Your task to perform on an android device: star an email in the gmail app Image 0: 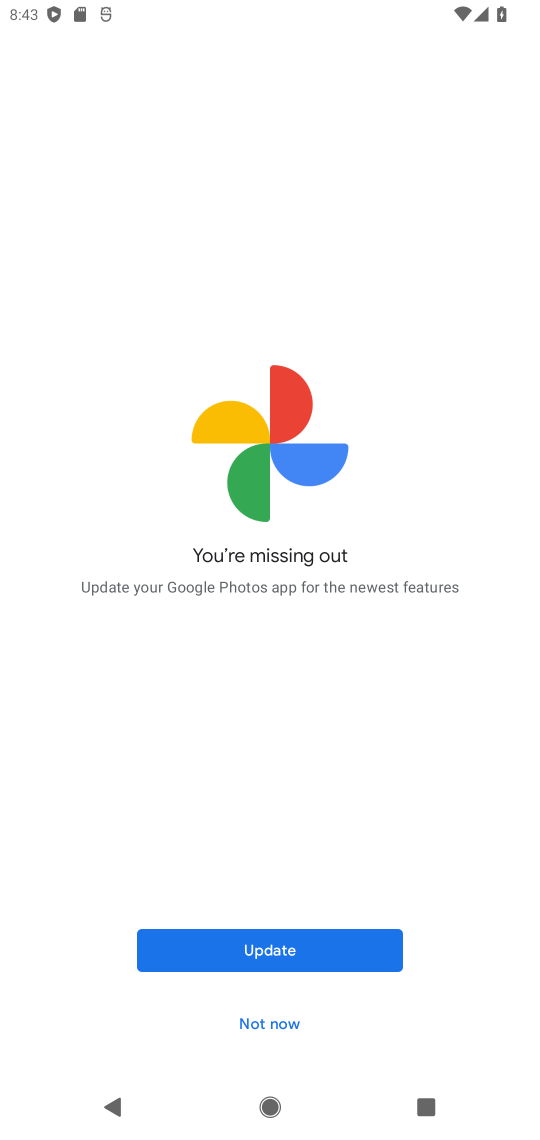
Step 0: press home button
Your task to perform on an android device: star an email in the gmail app Image 1: 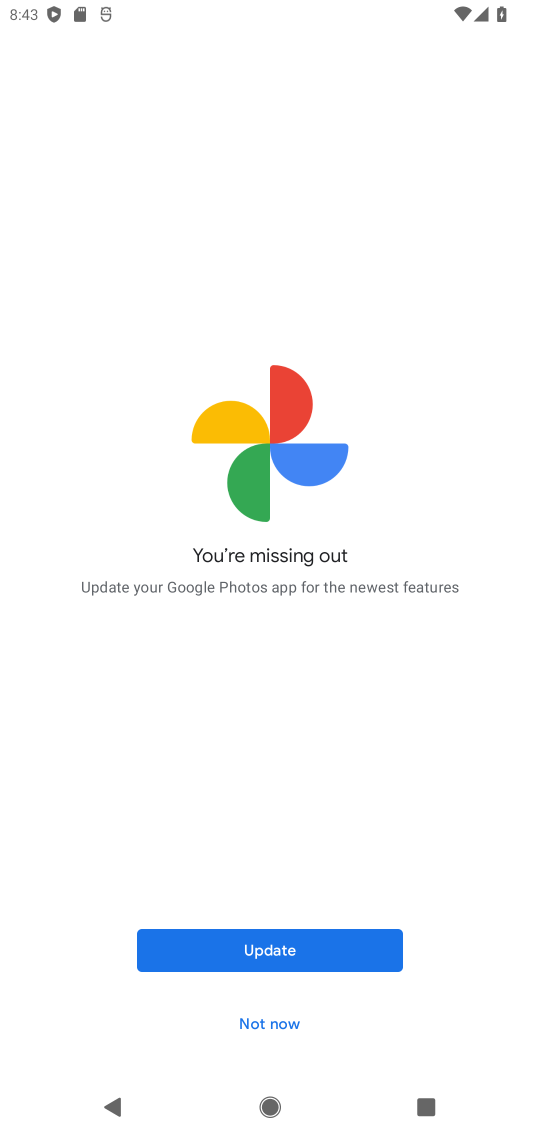
Step 1: press home button
Your task to perform on an android device: star an email in the gmail app Image 2: 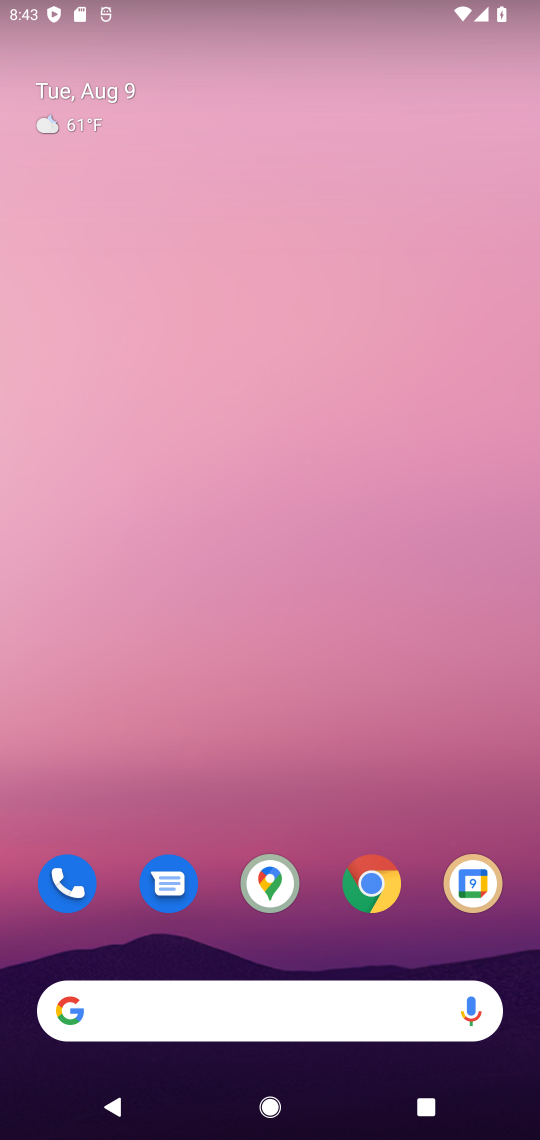
Step 2: drag from (230, 810) to (309, 89)
Your task to perform on an android device: star an email in the gmail app Image 3: 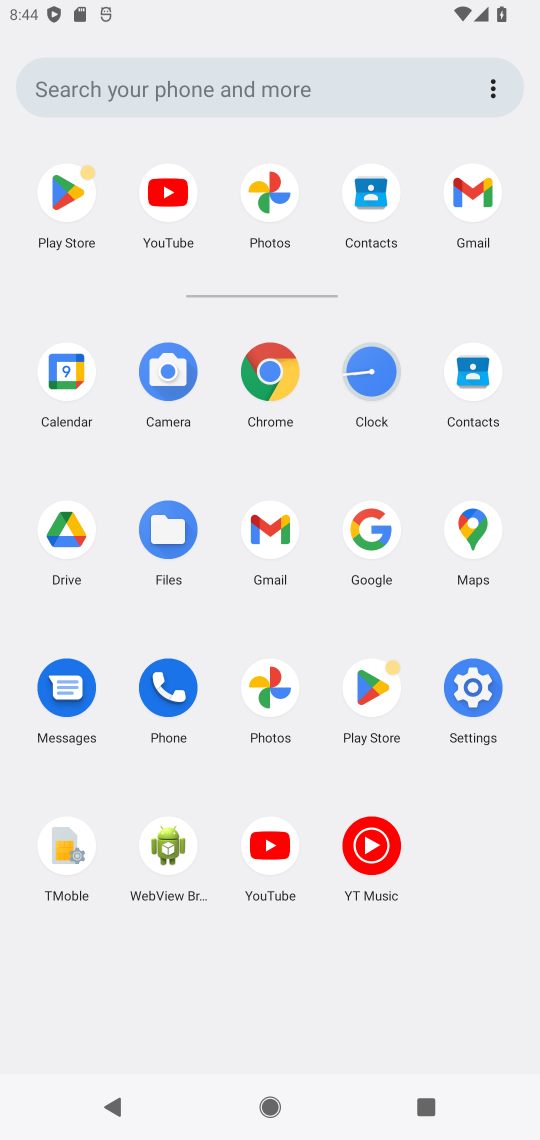
Step 3: click (268, 530)
Your task to perform on an android device: star an email in the gmail app Image 4: 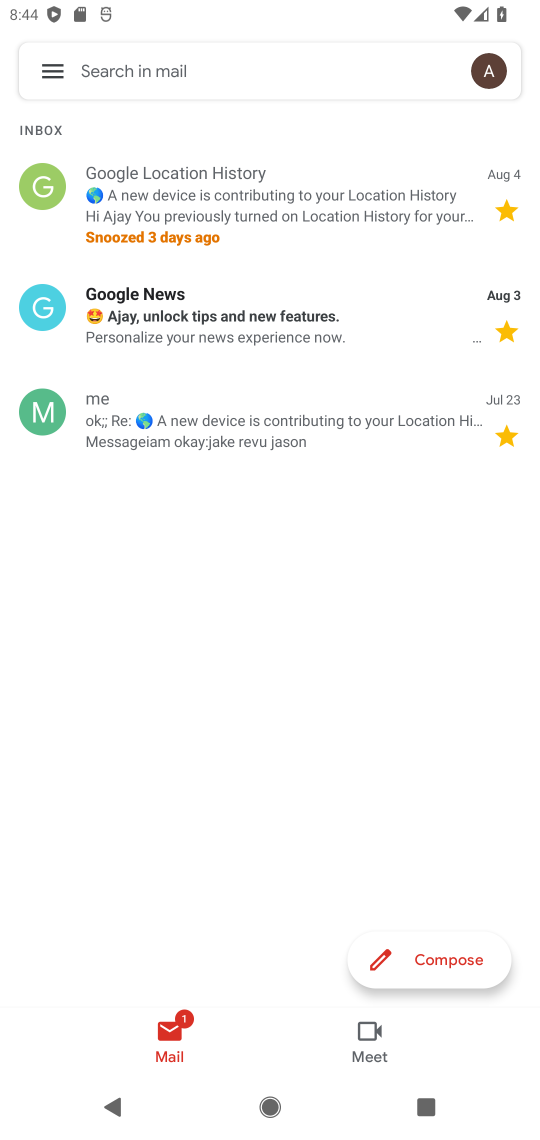
Step 4: click (63, 69)
Your task to perform on an android device: star an email in the gmail app Image 5: 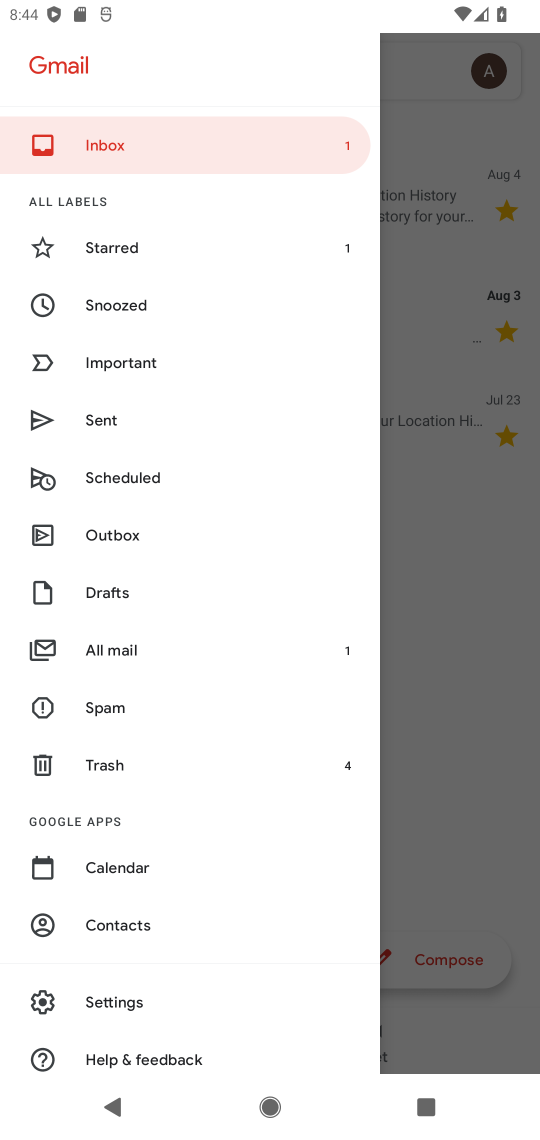
Step 5: click (138, 649)
Your task to perform on an android device: star an email in the gmail app Image 6: 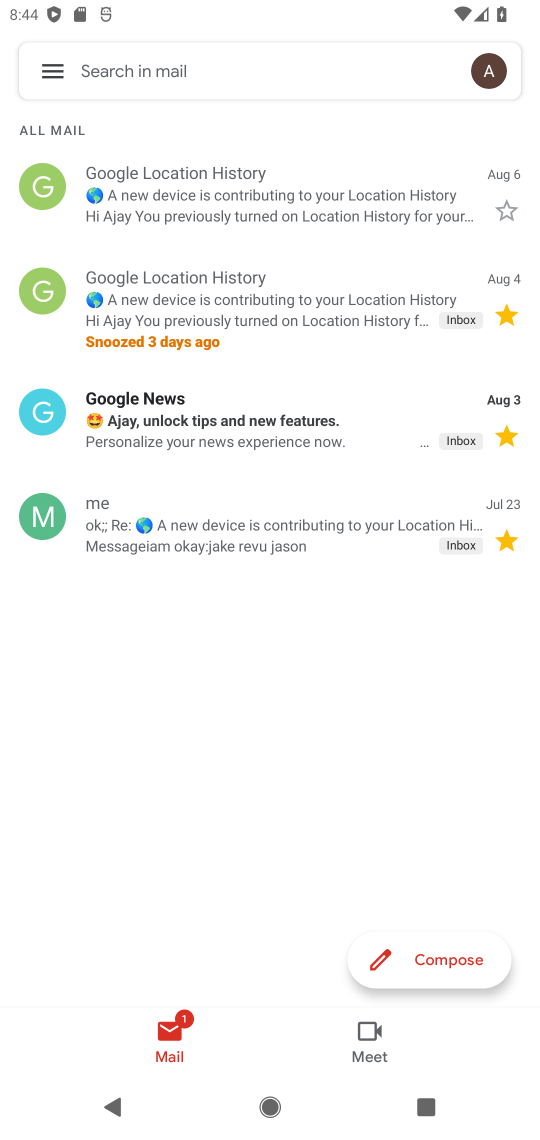
Step 6: click (511, 211)
Your task to perform on an android device: star an email in the gmail app Image 7: 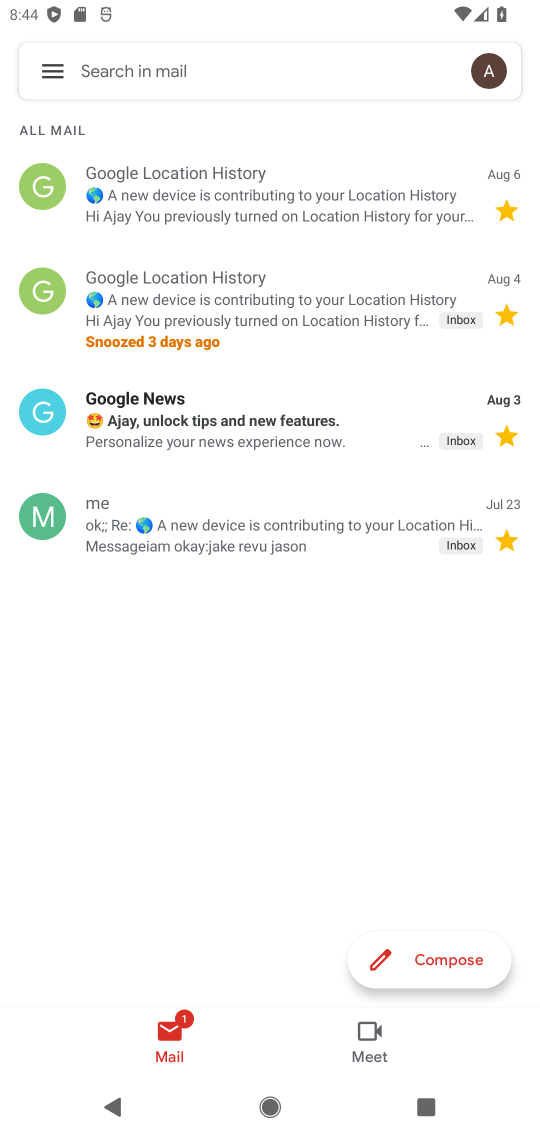
Step 7: task complete